Your task to perform on an android device: turn on showing notifications on the lock screen Image 0: 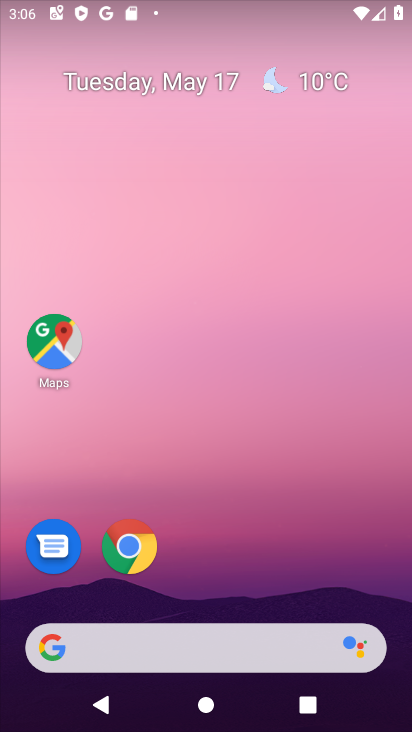
Step 0: drag from (265, 607) to (316, 20)
Your task to perform on an android device: turn on showing notifications on the lock screen Image 1: 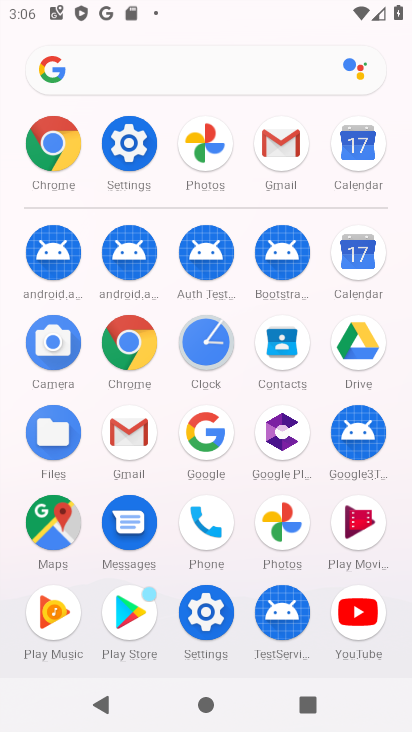
Step 1: click (131, 153)
Your task to perform on an android device: turn on showing notifications on the lock screen Image 2: 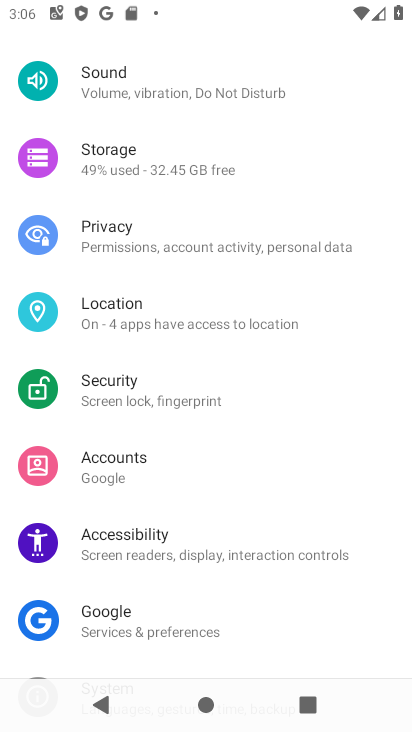
Step 2: drag from (197, 203) to (180, 651)
Your task to perform on an android device: turn on showing notifications on the lock screen Image 3: 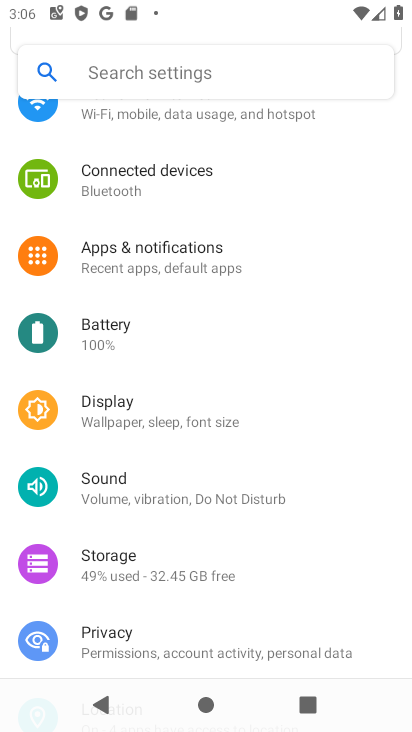
Step 3: drag from (245, 253) to (245, 527)
Your task to perform on an android device: turn on showing notifications on the lock screen Image 4: 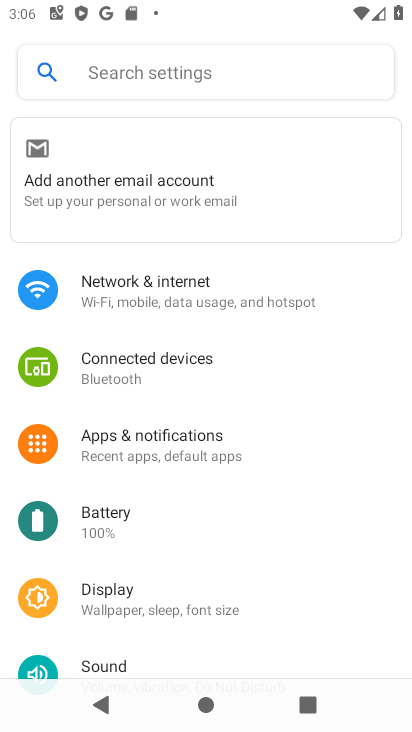
Step 4: click (209, 449)
Your task to perform on an android device: turn on showing notifications on the lock screen Image 5: 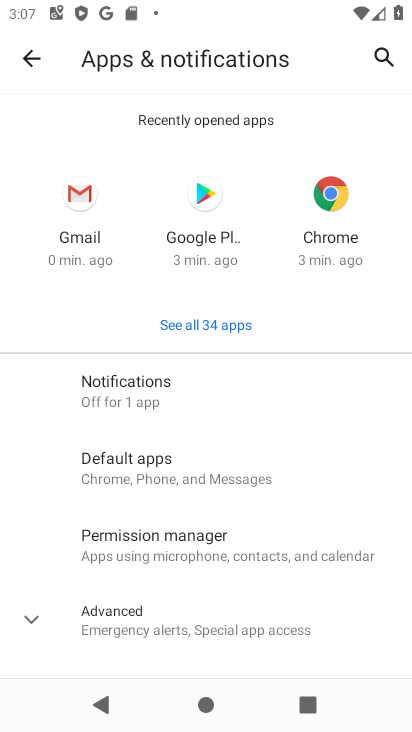
Step 5: click (158, 396)
Your task to perform on an android device: turn on showing notifications on the lock screen Image 6: 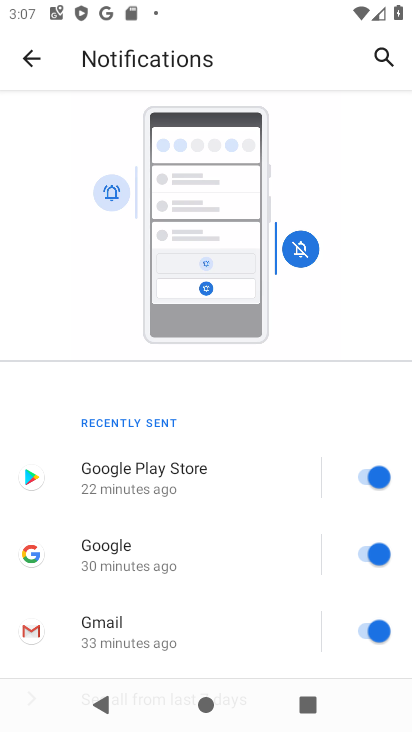
Step 6: drag from (191, 555) to (237, 254)
Your task to perform on an android device: turn on showing notifications on the lock screen Image 7: 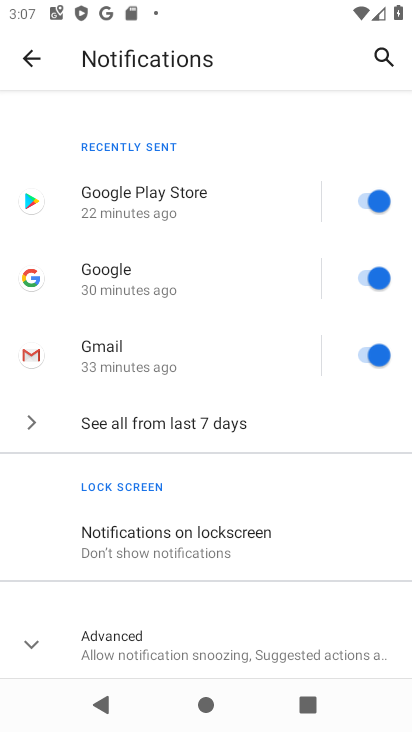
Step 7: click (197, 556)
Your task to perform on an android device: turn on showing notifications on the lock screen Image 8: 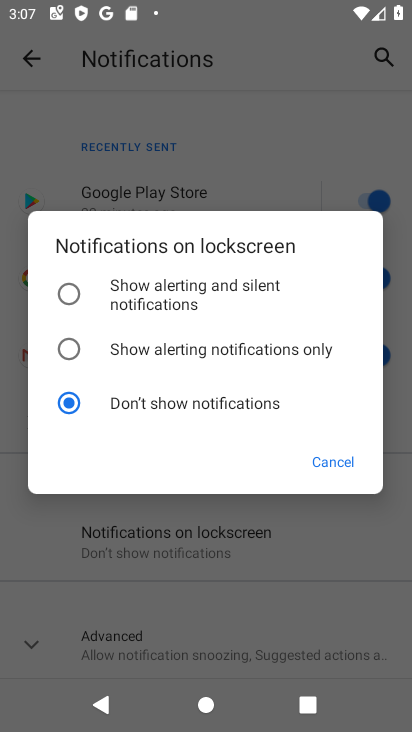
Step 8: click (70, 290)
Your task to perform on an android device: turn on showing notifications on the lock screen Image 9: 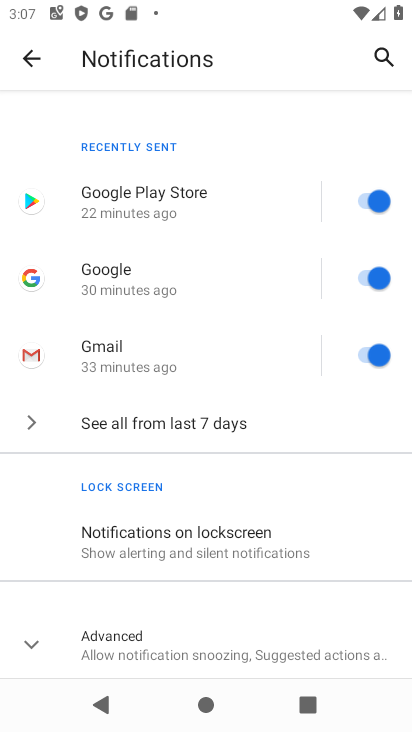
Step 9: task complete